Your task to perform on an android device: Open settings on Google Maps Image 0: 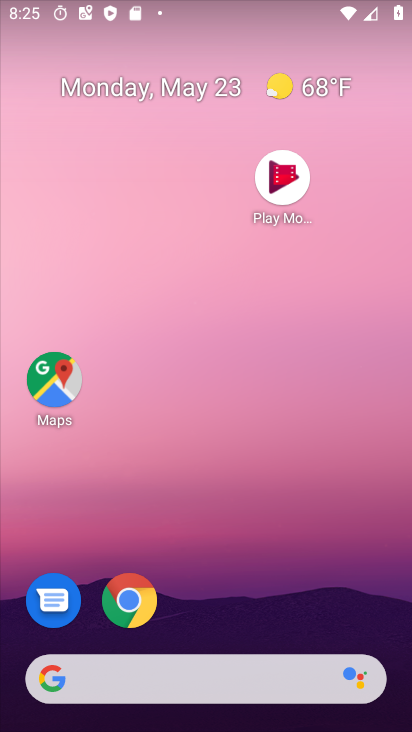
Step 0: drag from (359, 711) to (274, 174)
Your task to perform on an android device: Open settings on Google Maps Image 1: 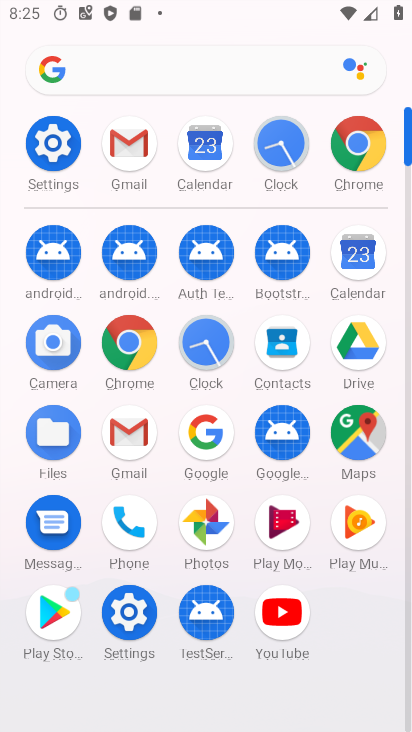
Step 1: click (340, 441)
Your task to perform on an android device: Open settings on Google Maps Image 2: 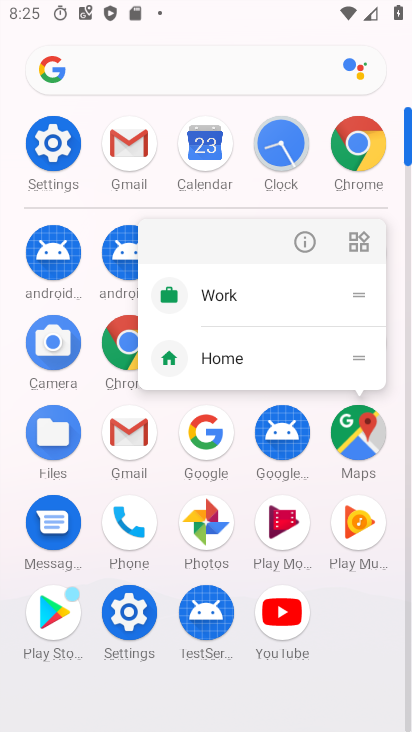
Step 2: click (349, 440)
Your task to perform on an android device: Open settings on Google Maps Image 3: 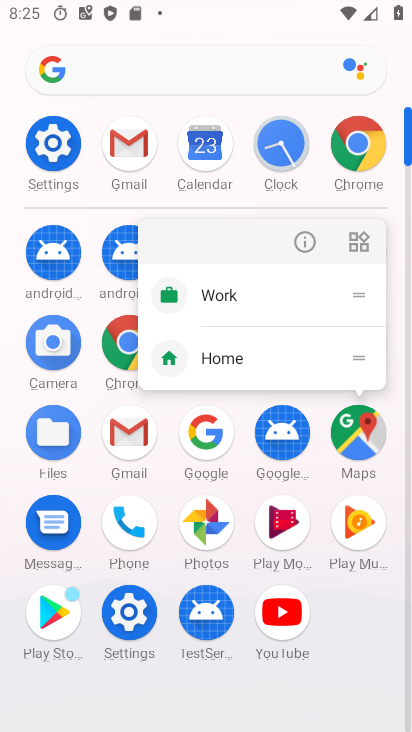
Step 3: click (366, 443)
Your task to perform on an android device: Open settings on Google Maps Image 4: 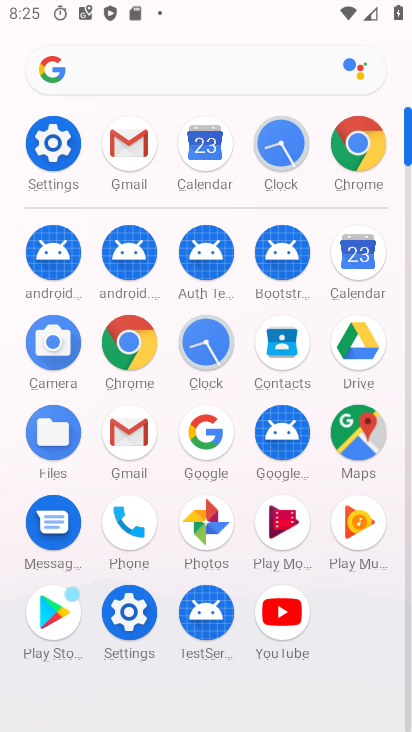
Step 4: click (366, 443)
Your task to perform on an android device: Open settings on Google Maps Image 5: 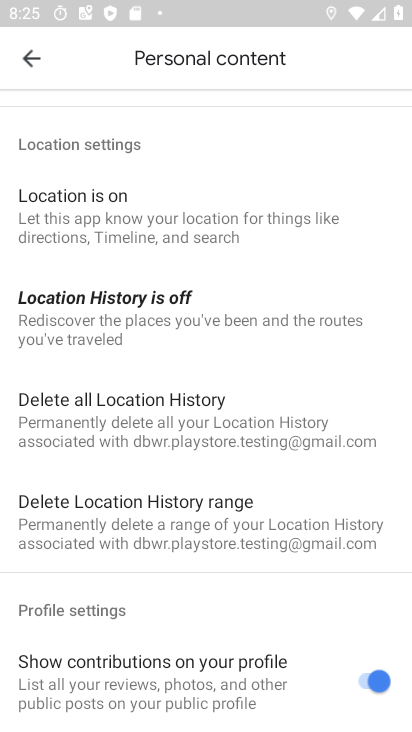
Step 5: click (22, 55)
Your task to perform on an android device: Open settings on Google Maps Image 6: 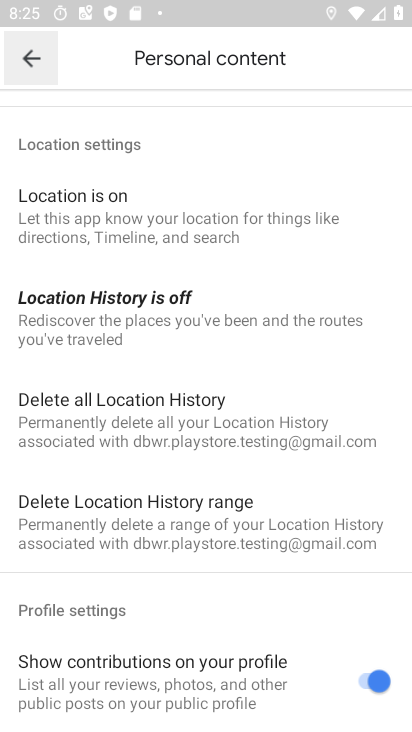
Step 6: click (34, 58)
Your task to perform on an android device: Open settings on Google Maps Image 7: 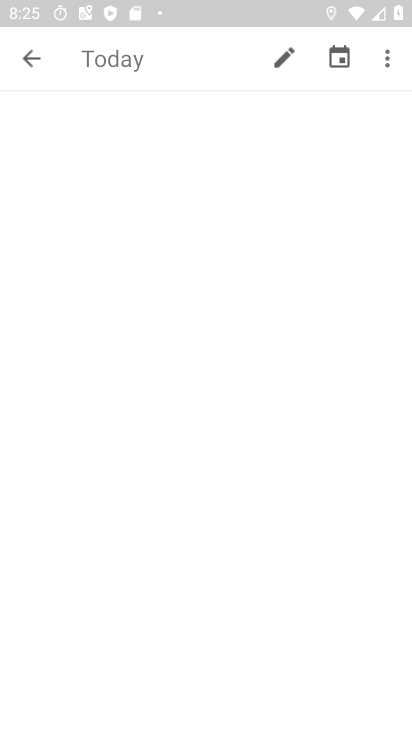
Step 7: click (34, 58)
Your task to perform on an android device: Open settings on Google Maps Image 8: 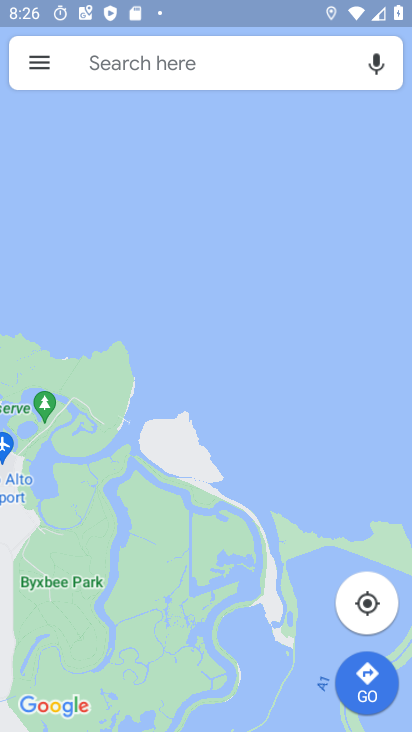
Step 8: click (41, 58)
Your task to perform on an android device: Open settings on Google Maps Image 9: 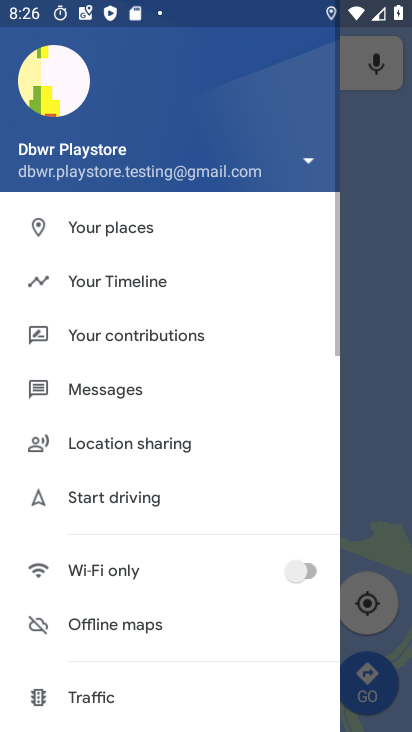
Step 9: click (142, 279)
Your task to perform on an android device: Open settings on Google Maps Image 10: 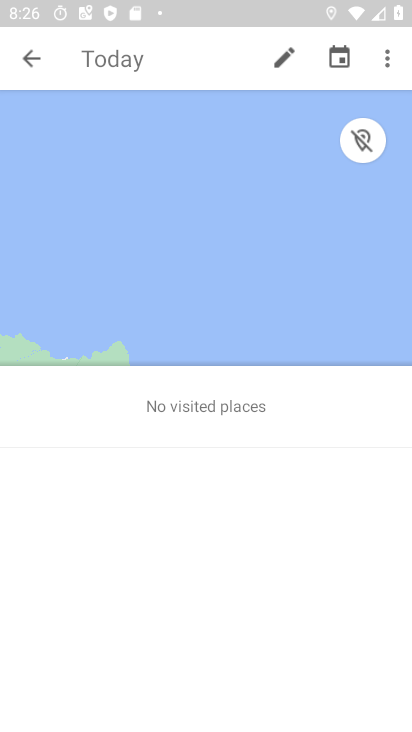
Step 10: click (382, 61)
Your task to perform on an android device: Open settings on Google Maps Image 11: 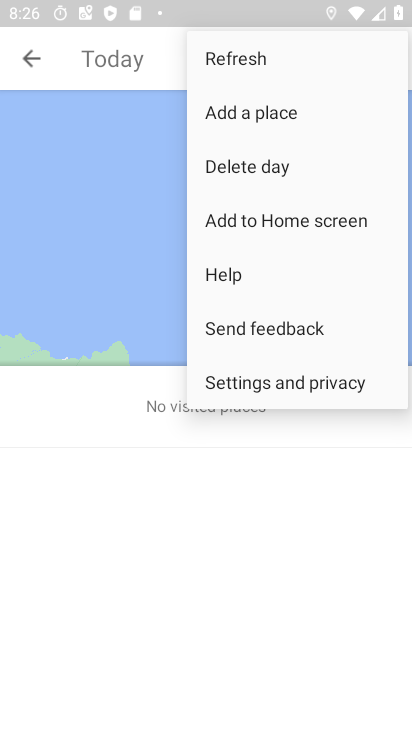
Step 11: click (252, 380)
Your task to perform on an android device: Open settings on Google Maps Image 12: 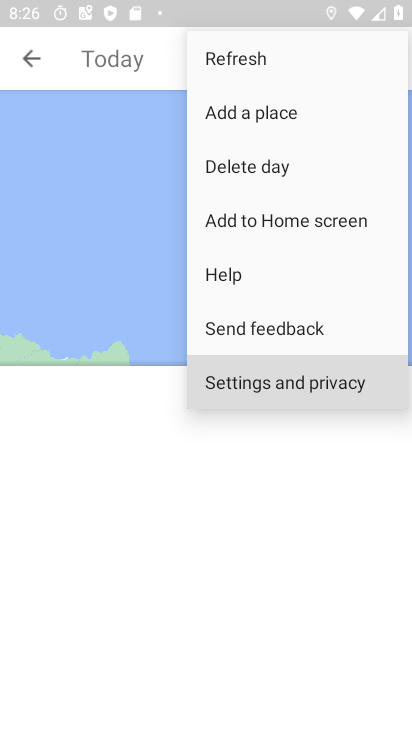
Step 12: click (252, 379)
Your task to perform on an android device: Open settings on Google Maps Image 13: 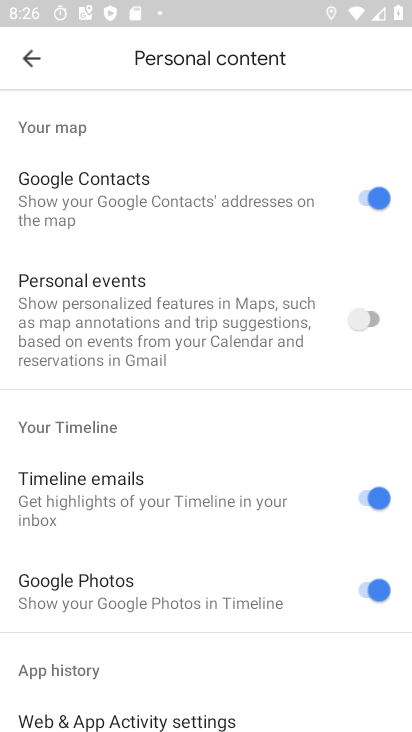
Step 13: task complete